Your task to perform on an android device: Go to settings Image 0: 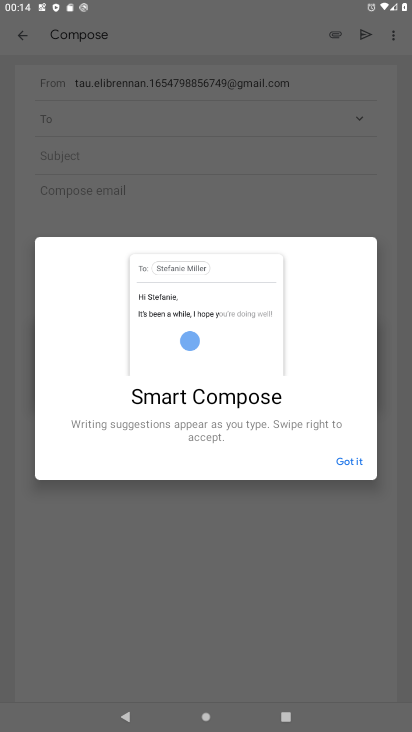
Step 0: press home button
Your task to perform on an android device: Go to settings Image 1: 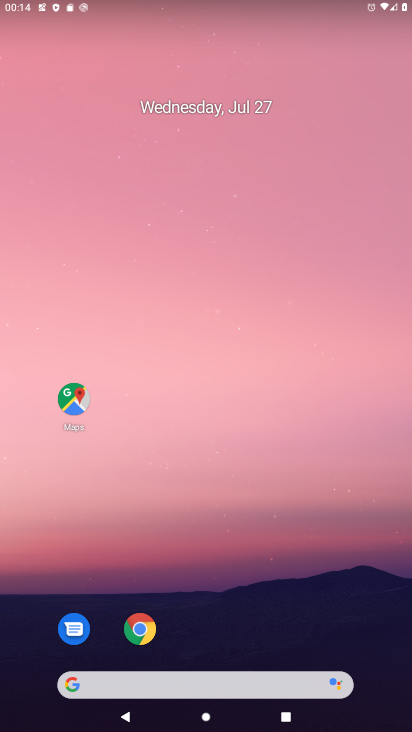
Step 1: drag from (240, 706) to (288, 85)
Your task to perform on an android device: Go to settings Image 2: 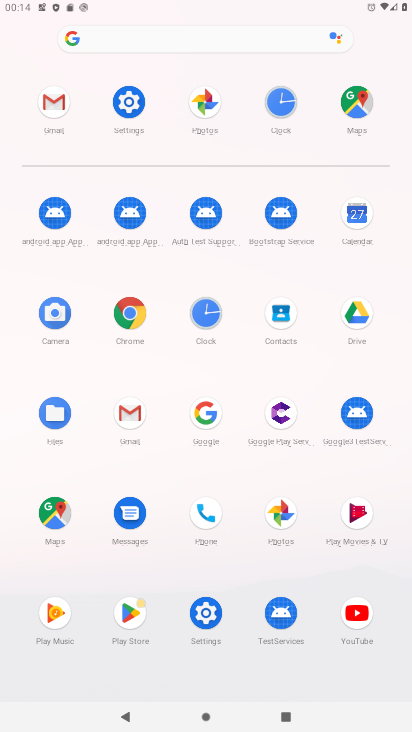
Step 2: click (133, 95)
Your task to perform on an android device: Go to settings Image 3: 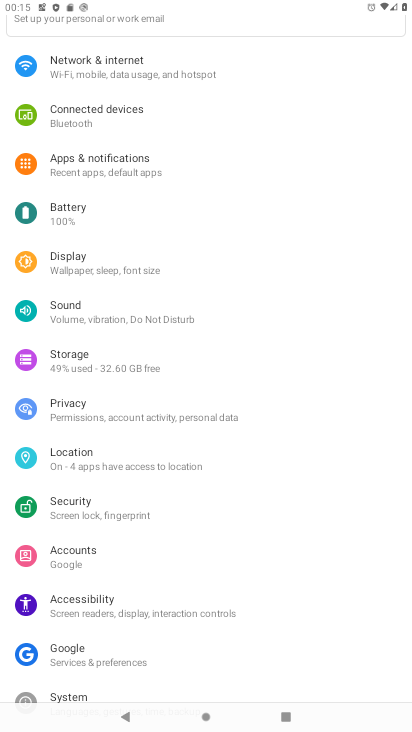
Step 3: task complete